Your task to perform on an android device: turn vacation reply on in the gmail app Image 0: 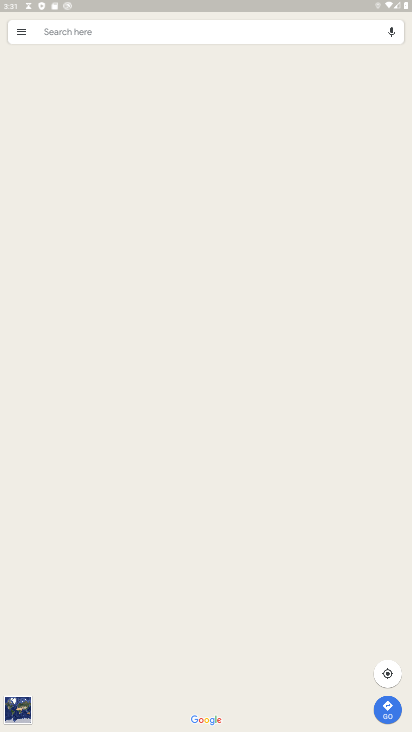
Step 0: click (365, 95)
Your task to perform on an android device: turn vacation reply on in the gmail app Image 1: 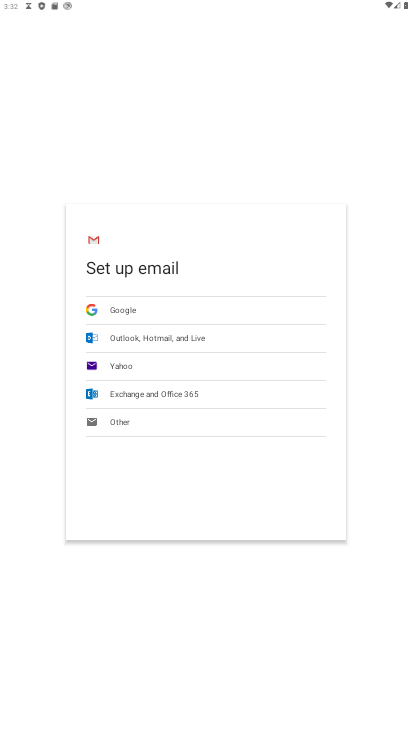
Step 1: press home button
Your task to perform on an android device: turn vacation reply on in the gmail app Image 2: 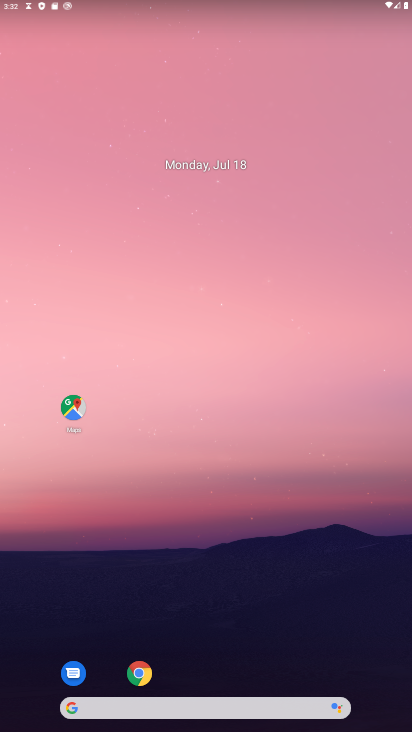
Step 2: drag from (174, 655) to (300, 100)
Your task to perform on an android device: turn vacation reply on in the gmail app Image 3: 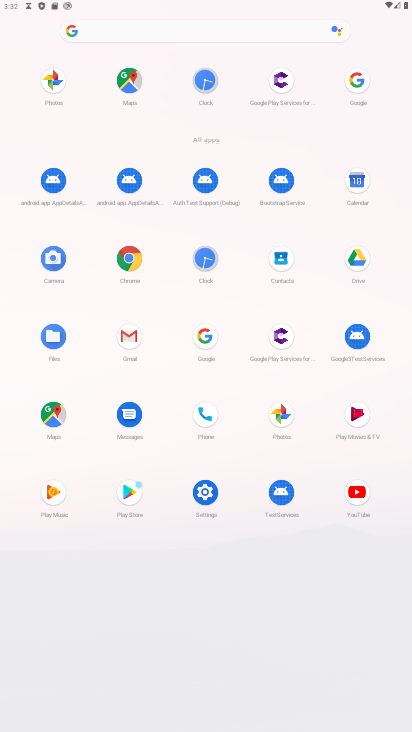
Step 3: click (126, 345)
Your task to perform on an android device: turn vacation reply on in the gmail app Image 4: 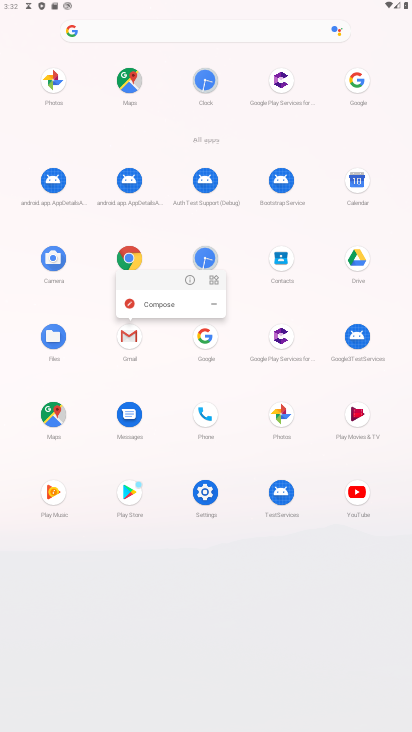
Step 4: click (134, 343)
Your task to perform on an android device: turn vacation reply on in the gmail app Image 5: 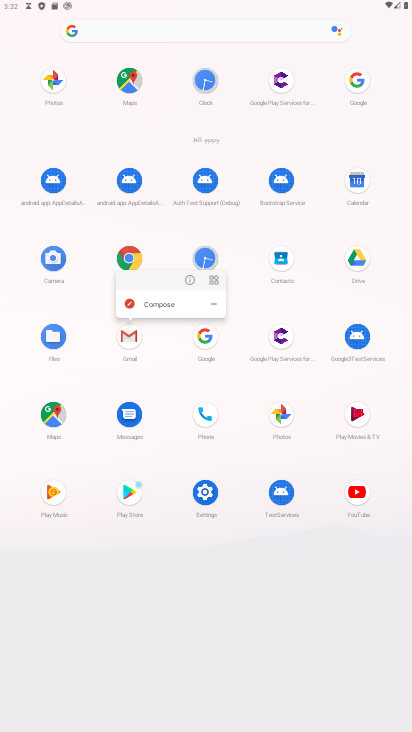
Step 5: click (127, 334)
Your task to perform on an android device: turn vacation reply on in the gmail app Image 6: 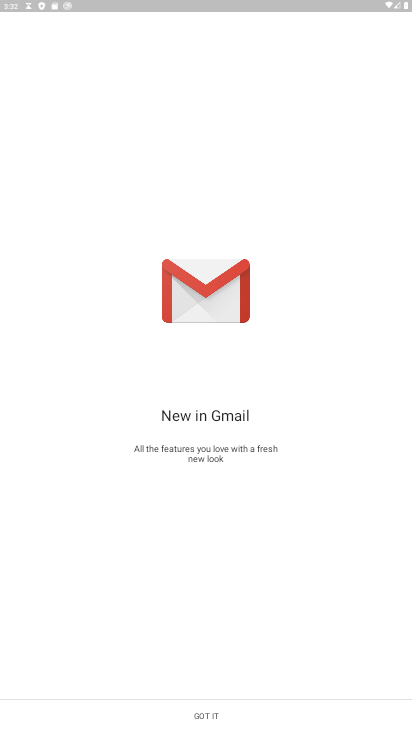
Step 6: click (184, 713)
Your task to perform on an android device: turn vacation reply on in the gmail app Image 7: 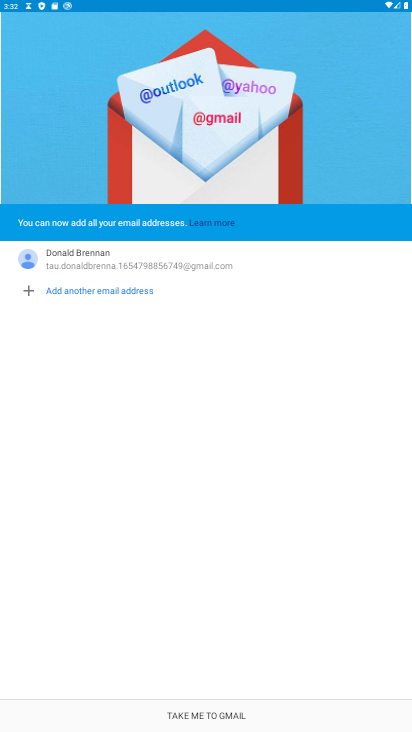
Step 7: click (227, 724)
Your task to perform on an android device: turn vacation reply on in the gmail app Image 8: 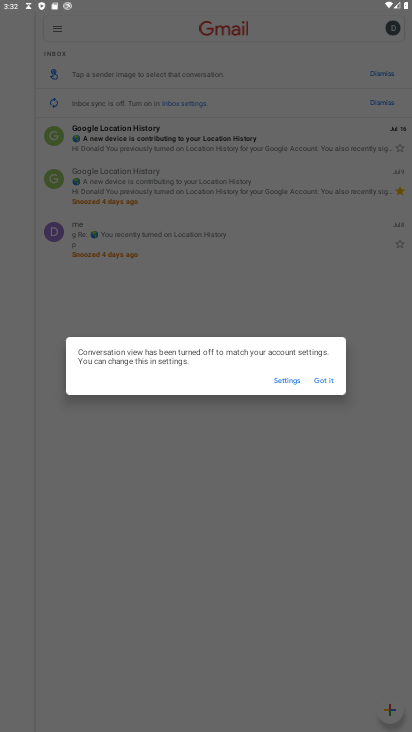
Step 8: click (315, 380)
Your task to perform on an android device: turn vacation reply on in the gmail app Image 9: 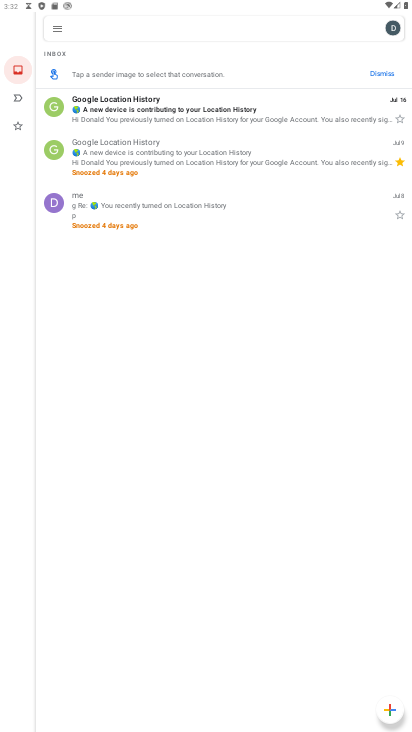
Step 9: click (54, 34)
Your task to perform on an android device: turn vacation reply on in the gmail app Image 10: 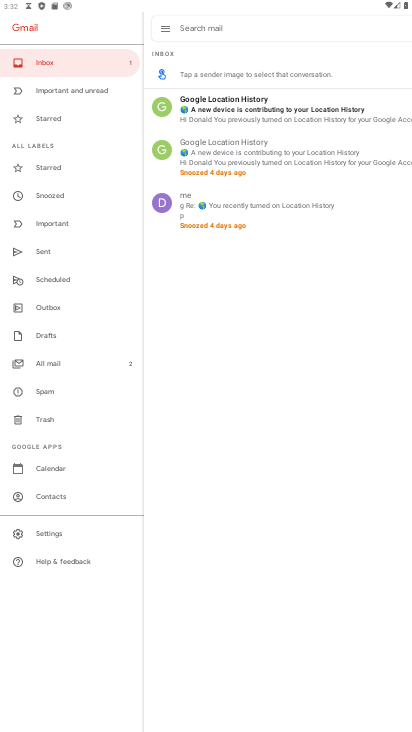
Step 10: click (63, 527)
Your task to perform on an android device: turn vacation reply on in the gmail app Image 11: 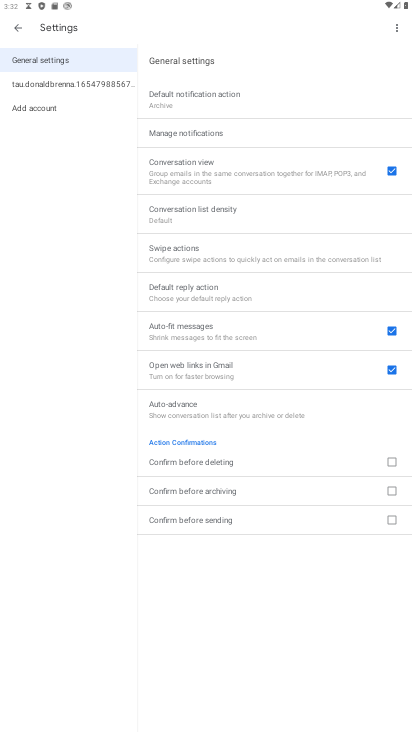
Step 11: click (90, 79)
Your task to perform on an android device: turn vacation reply on in the gmail app Image 12: 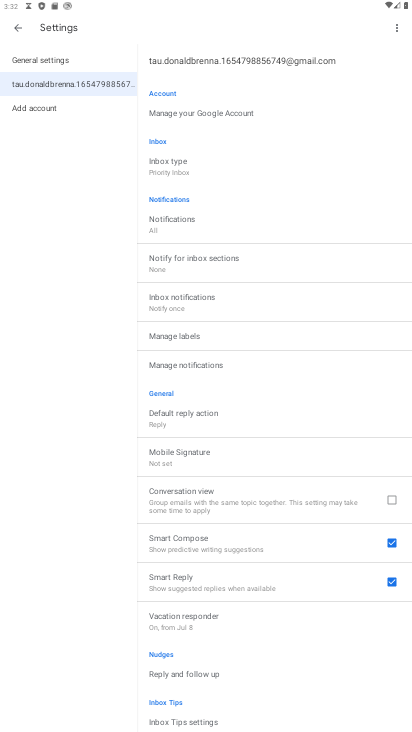
Step 12: click (224, 632)
Your task to perform on an android device: turn vacation reply on in the gmail app Image 13: 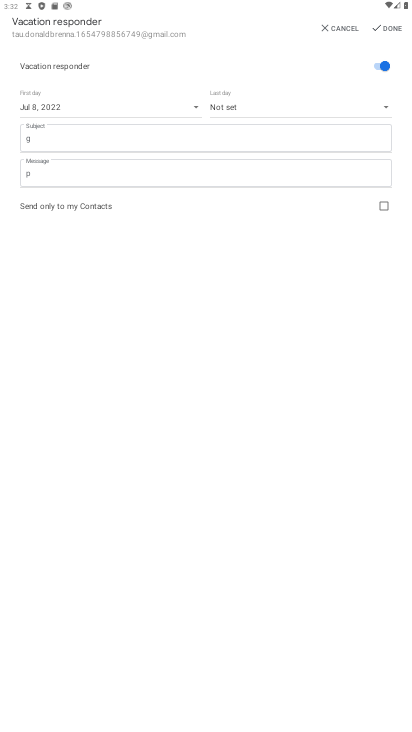
Step 13: task complete